Your task to perform on an android device: open app "NewsBreak: Local News & Alerts" (install if not already installed) and go to login screen Image 0: 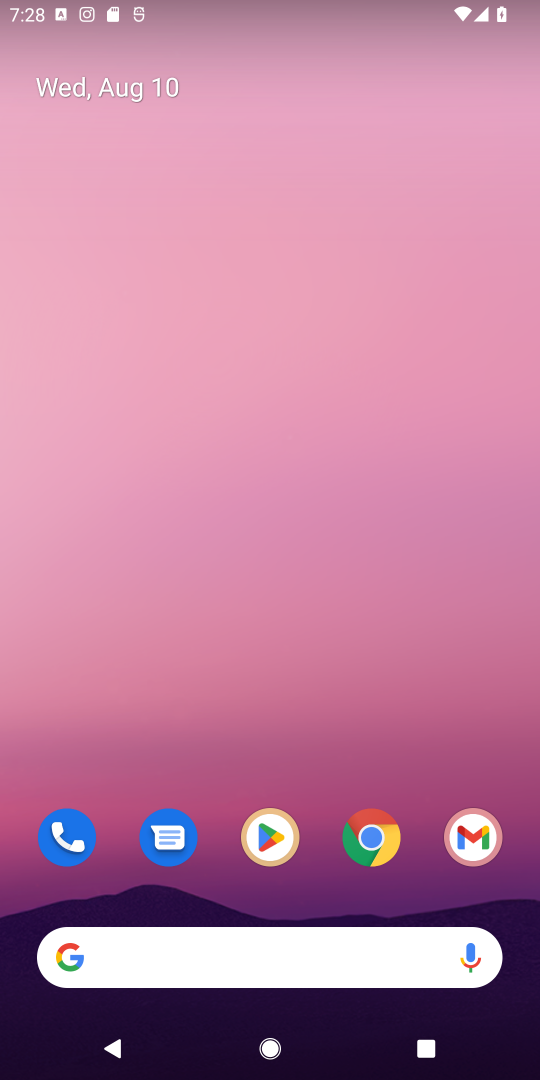
Step 0: press home button
Your task to perform on an android device: open app "NewsBreak: Local News & Alerts" (install if not already installed) and go to login screen Image 1: 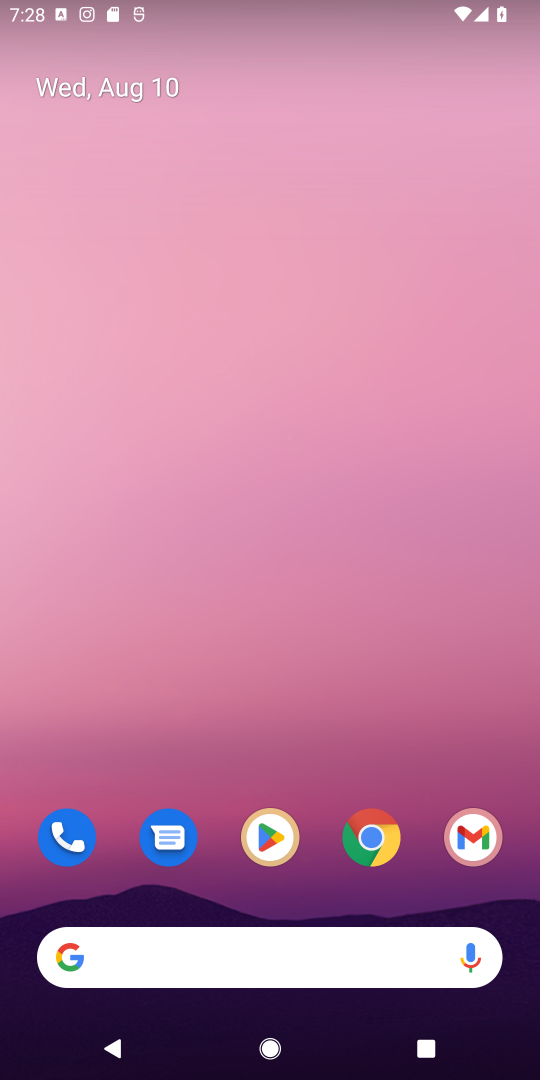
Step 1: click (264, 834)
Your task to perform on an android device: open app "NewsBreak: Local News & Alerts" (install if not already installed) and go to login screen Image 2: 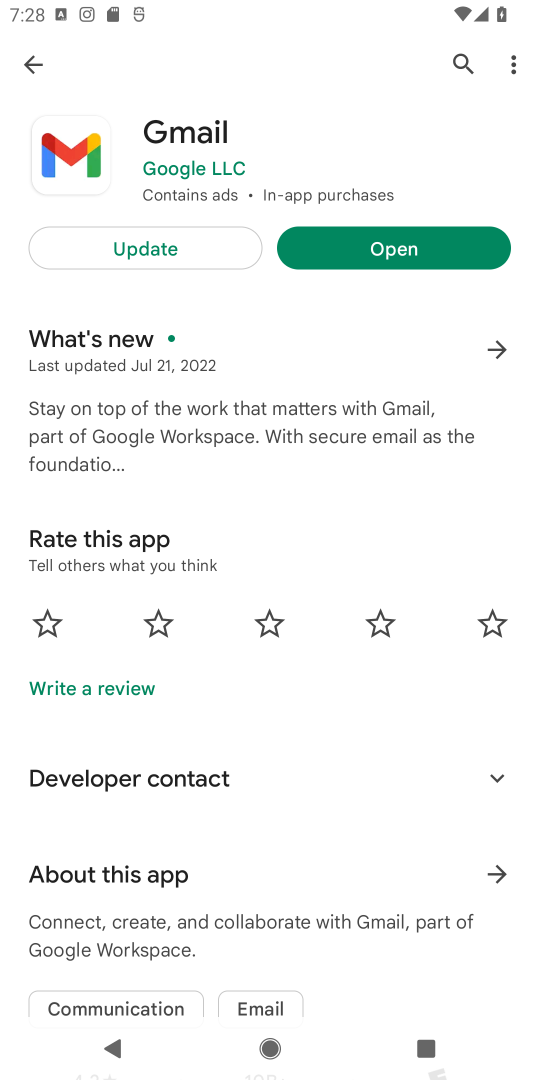
Step 2: click (462, 53)
Your task to perform on an android device: open app "NewsBreak: Local News & Alerts" (install if not already installed) and go to login screen Image 3: 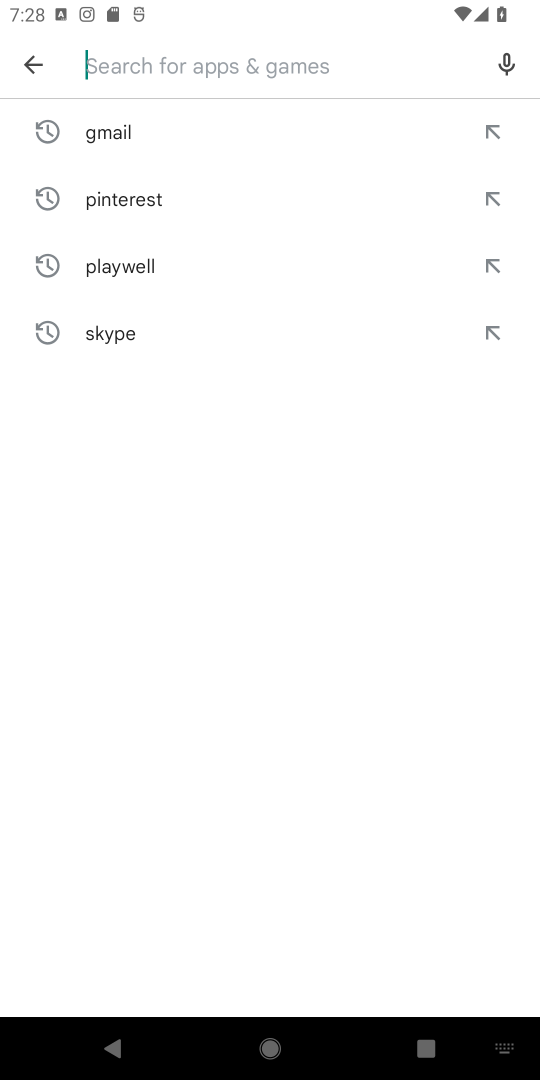
Step 3: type "NewsBreak: Local News & Alerts"
Your task to perform on an android device: open app "NewsBreak: Local News & Alerts" (install if not already installed) and go to login screen Image 4: 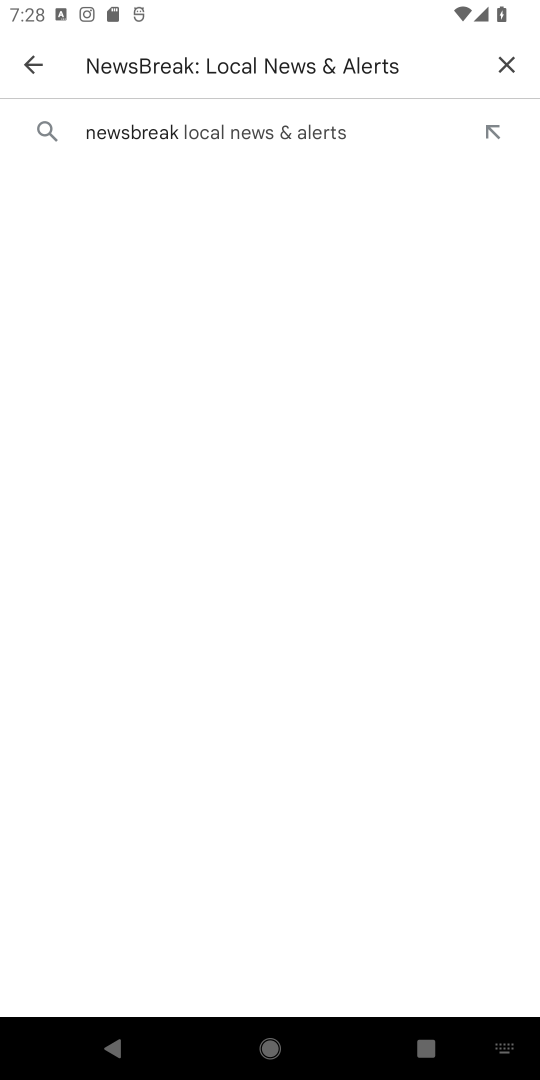
Step 4: click (236, 130)
Your task to perform on an android device: open app "NewsBreak: Local News & Alerts" (install if not already installed) and go to login screen Image 5: 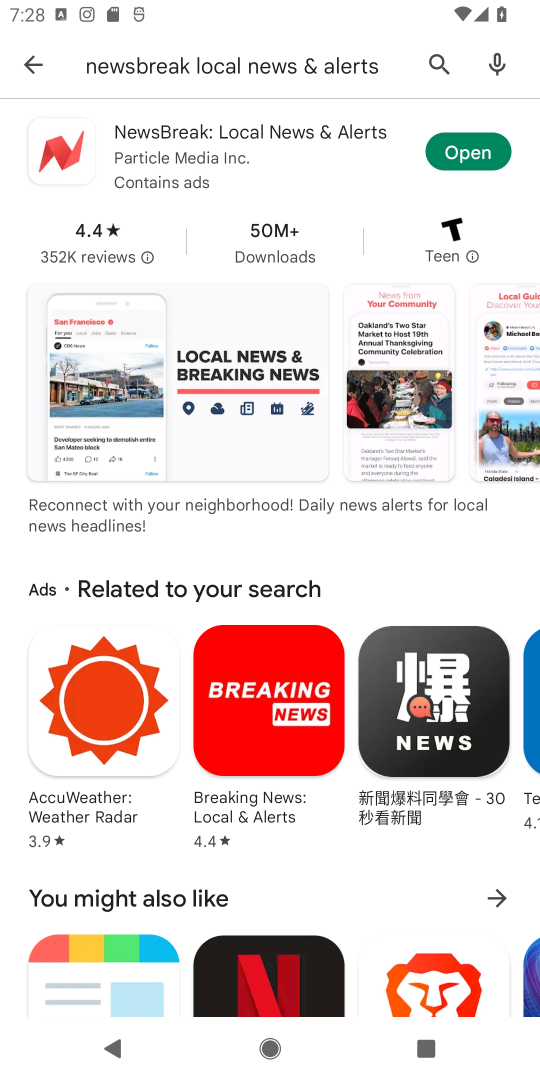
Step 5: click (470, 148)
Your task to perform on an android device: open app "NewsBreak: Local News & Alerts" (install if not already installed) and go to login screen Image 6: 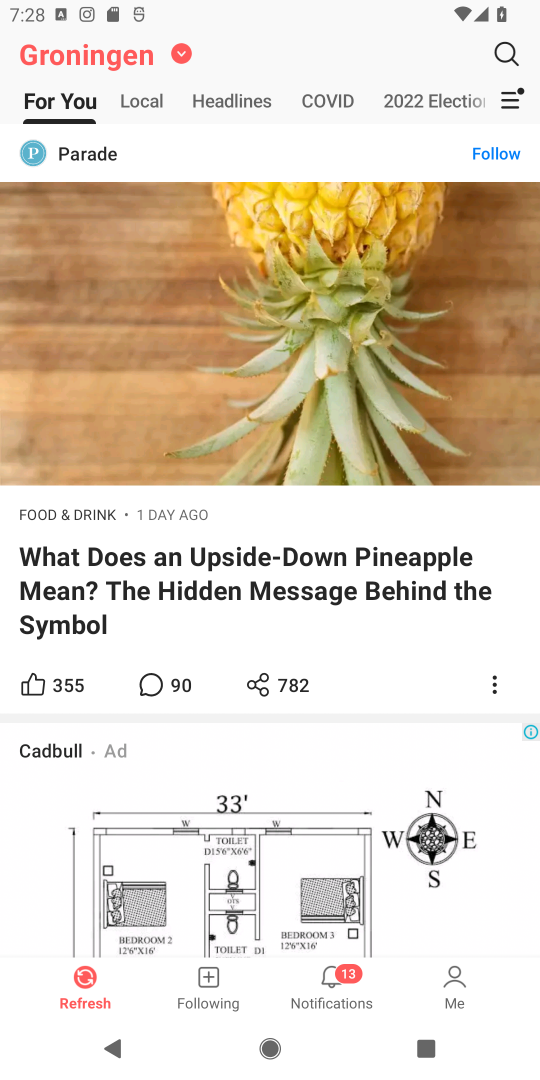
Step 6: task complete